Your task to perform on an android device: turn on translation in the chrome app Image 0: 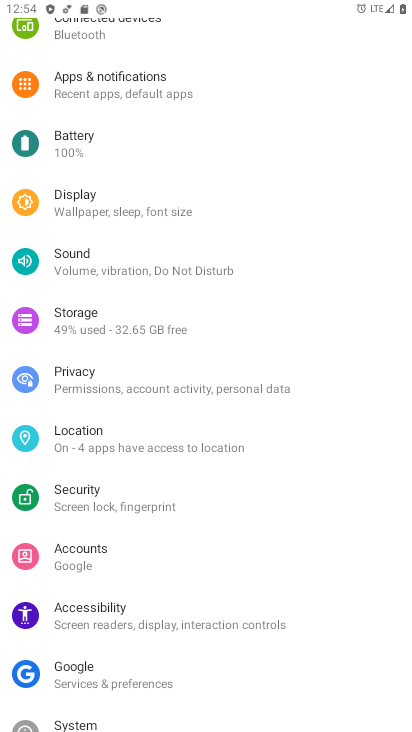
Step 0: press home button
Your task to perform on an android device: turn on translation in the chrome app Image 1: 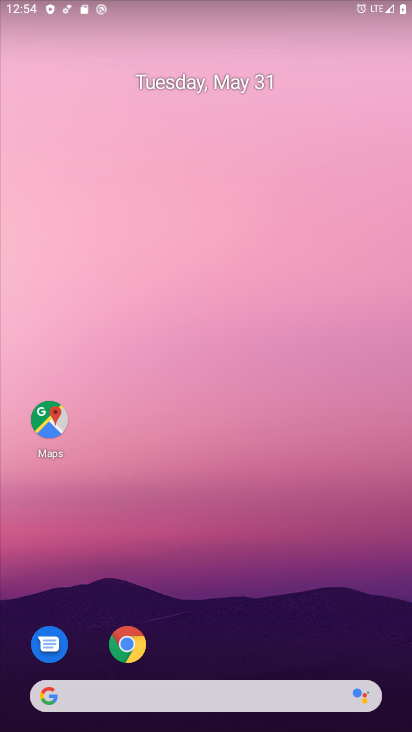
Step 1: click (126, 645)
Your task to perform on an android device: turn on translation in the chrome app Image 2: 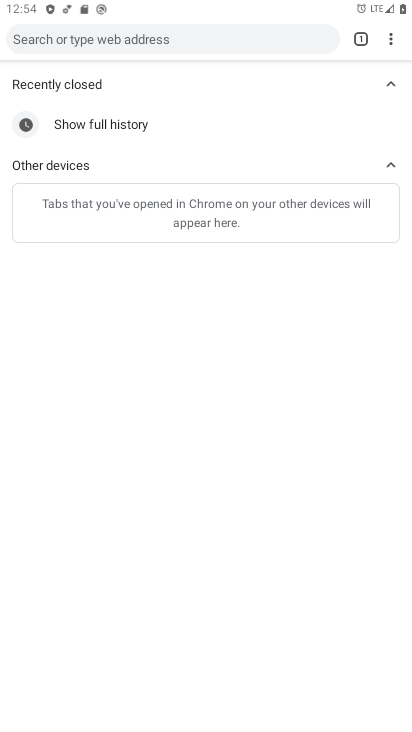
Step 2: click (393, 45)
Your task to perform on an android device: turn on translation in the chrome app Image 3: 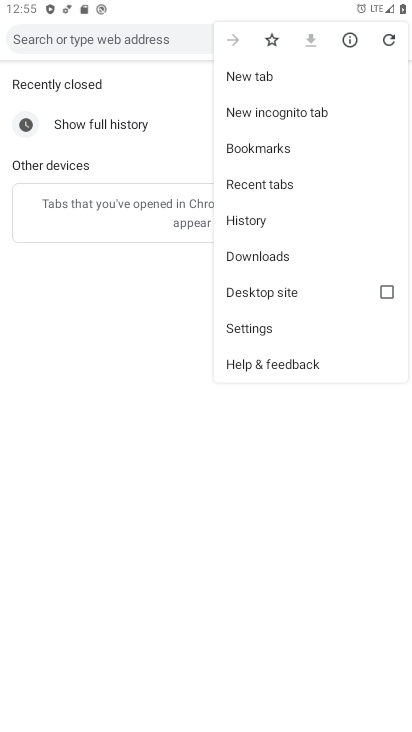
Step 3: click (262, 333)
Your task to perform on an android device: turn on translation in the chrome app Image 4: 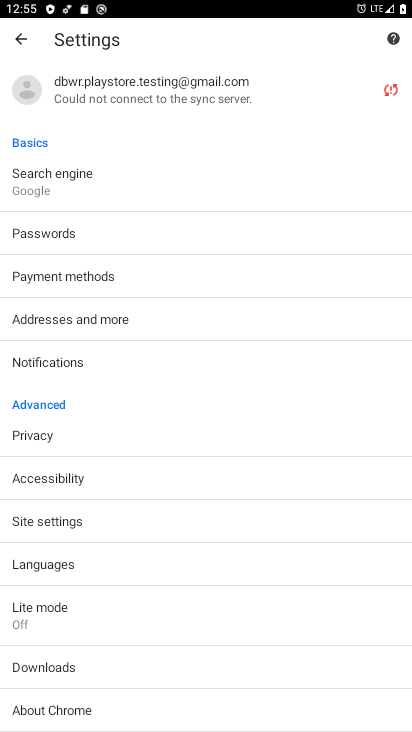
Step 4: click (75, 567)
Your task to perform on an android device: turn on translation in the chrome app Image 5: 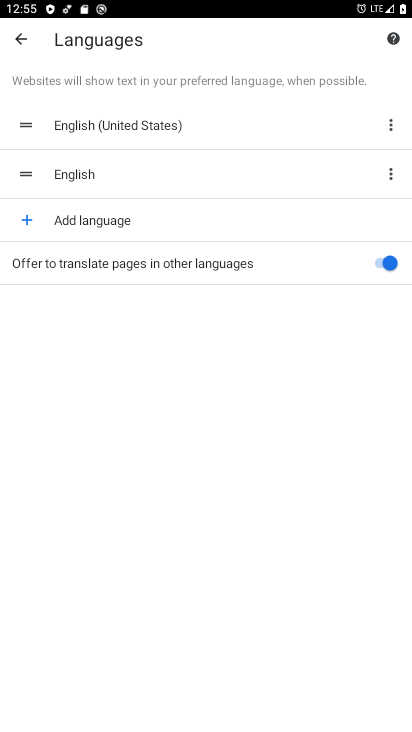
Step 5: task complete